Your task to perform on an android device: Search for pizza restaurants on Maps Image 0: 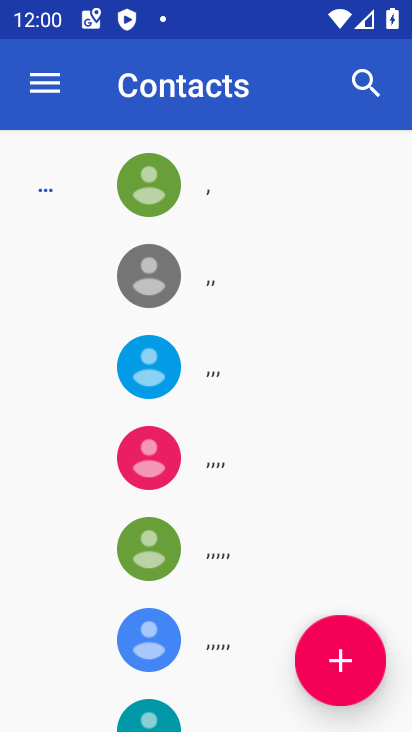
Step 0: press home button
Your task to perform on an android device: Search for pizza restaurants on Maps Image 1: 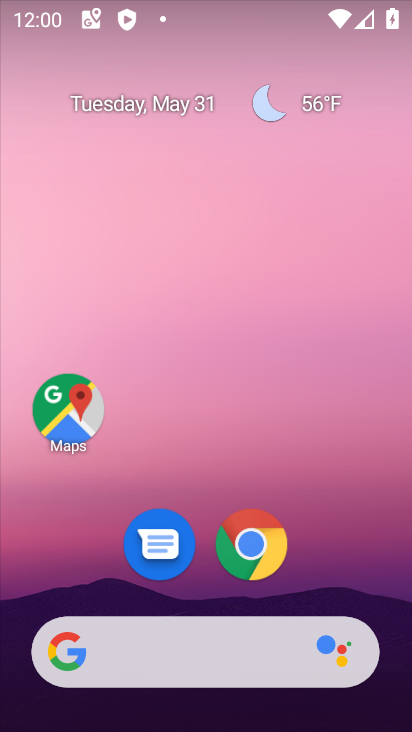
Step 1: click (78, 400)
Your task to perform on an android device: Search for pizza restaurants on Maps Image 2: 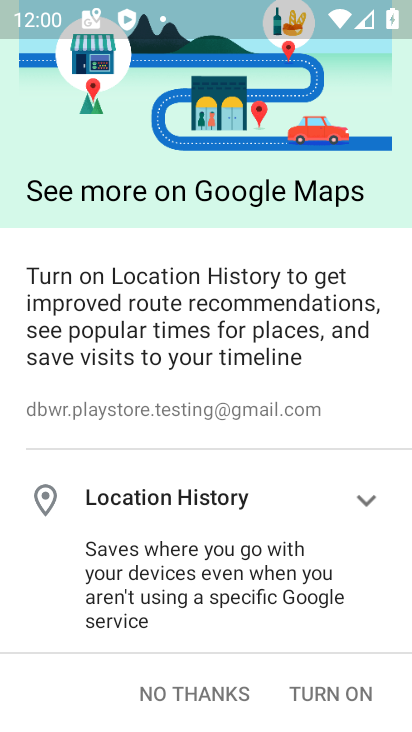
Step 2: click (309, 705)
Your task to perform on an android device: Search for pizza restaurants on Maps Image 3: 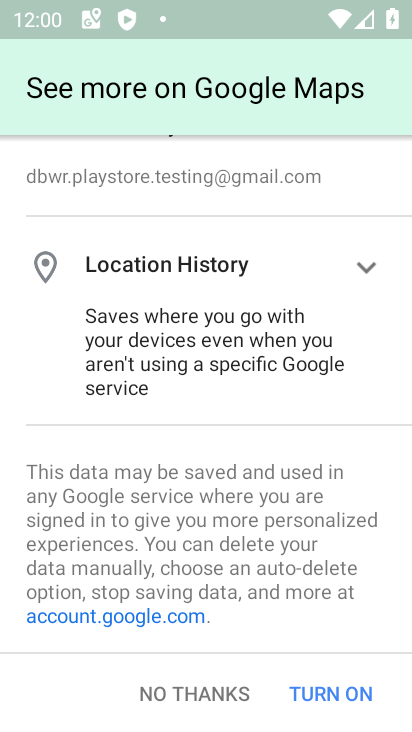
Step 3: click (309, 705)
Your task to perform on an android device: Search for pizza restaurants on Maps Image 4: 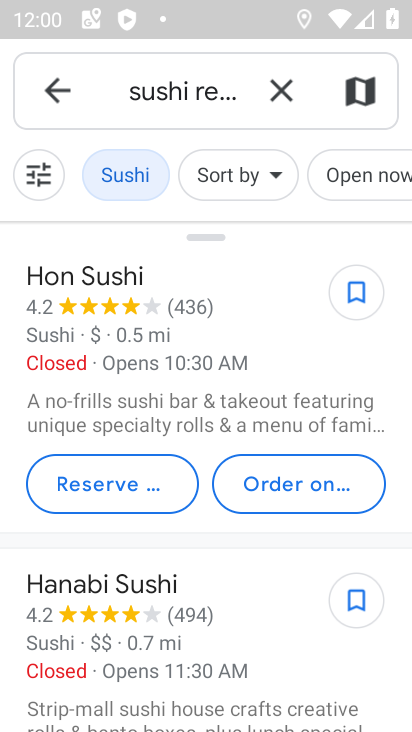
Step 4: click (287, 82)
Your task to perform on an android device: Search for pizza restaurants on Maps Image 5: 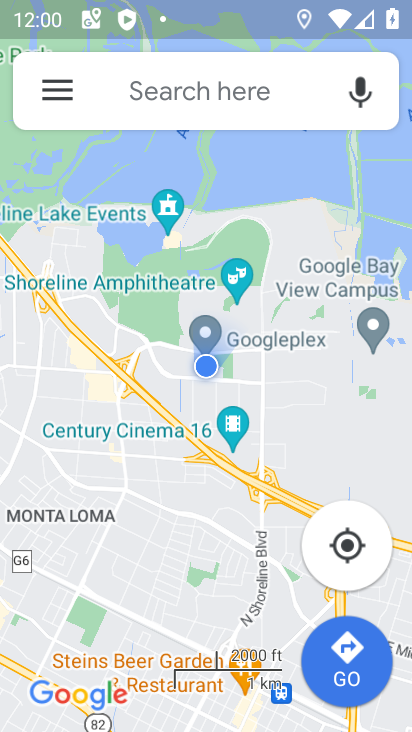
Step 5: click (186, 81)
Your task to perform on an android device: Search for pizza restaurants on Maps Image 6: 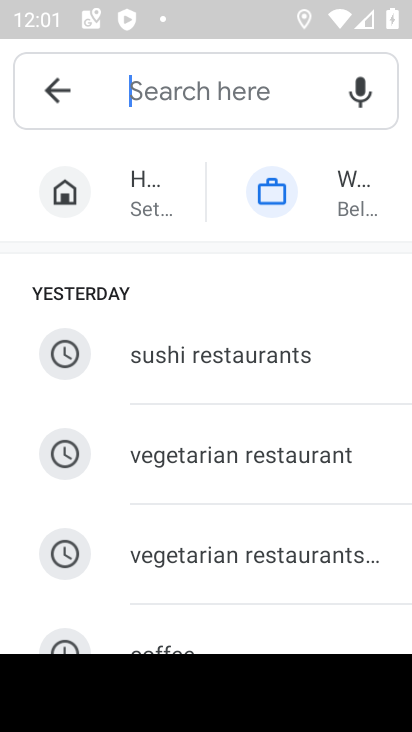
Step 6: type "pizza restaurants"
Your task to perform on an android device: Search for pizza restaurants on Maps Image 7: 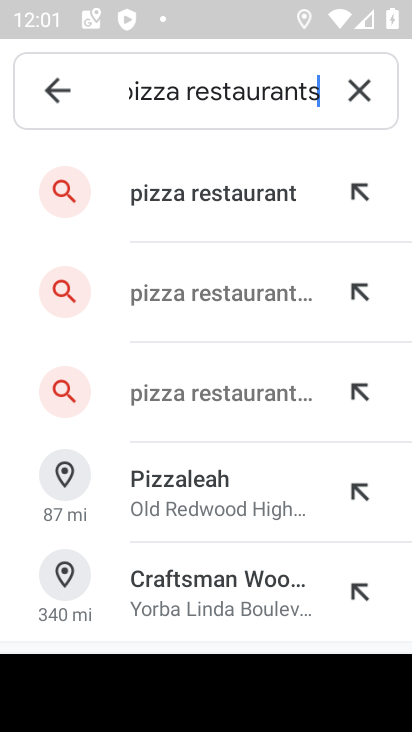
Step 7: click (203, 184)
Your task to perform on an android device: Search for pizza restaurants on Maps Image 8: 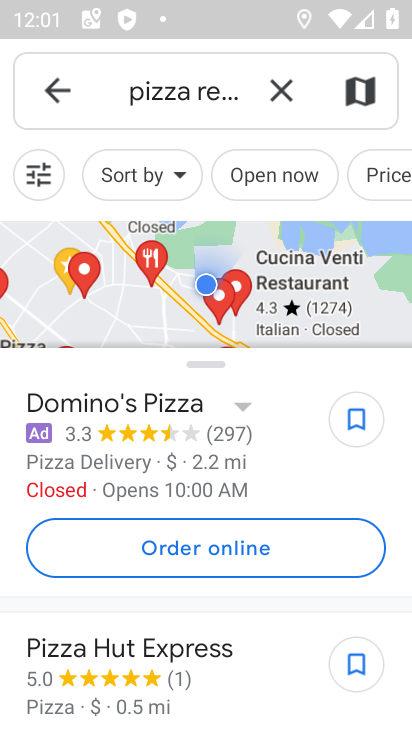
Step 8: task complete